Your task to perform on an android device: toggle improve location accuracy Image 0: 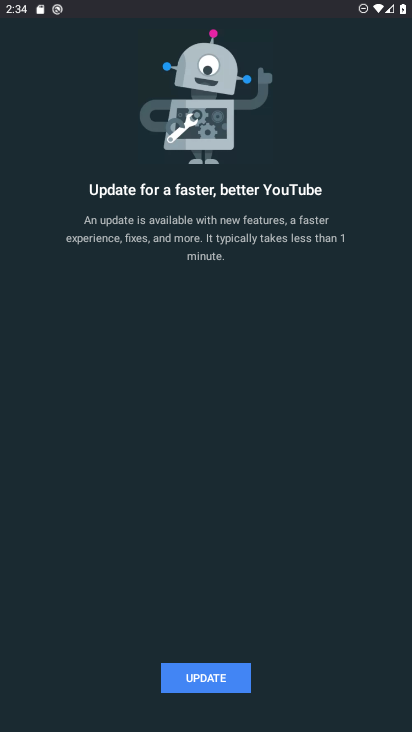
Step 0: press home button
Your task to perform on an android device: toggle improve location accuracy Image 1: 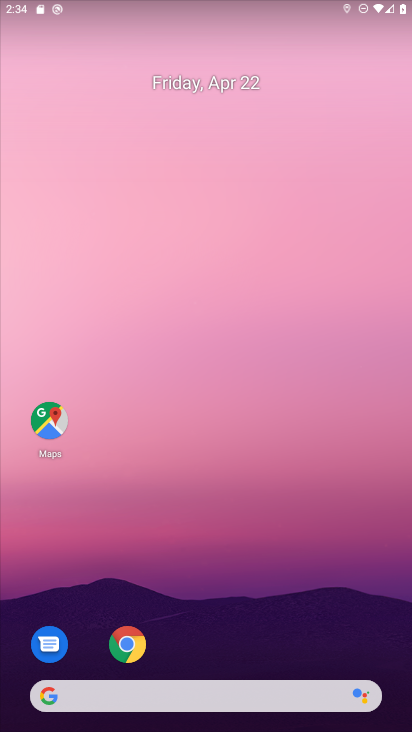
Step 1: drag from (245, 590) to (317, 135)
Your task to perform on an android device: toggle improve location accuracy Image 2: 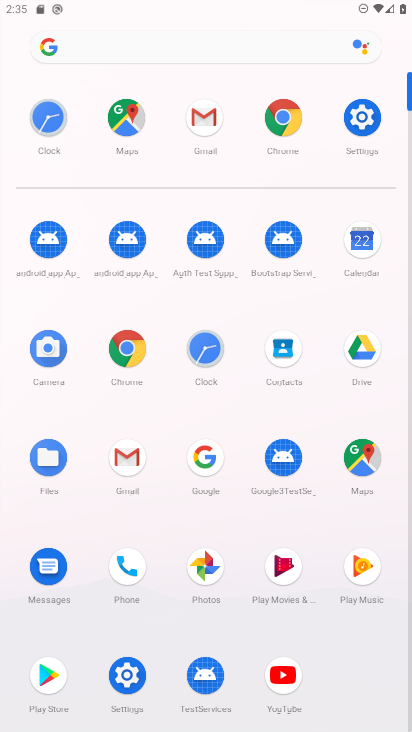
Step 2: click (362, 113)
Your task to perform on an android device: toggle improve location accuracy Image 3: 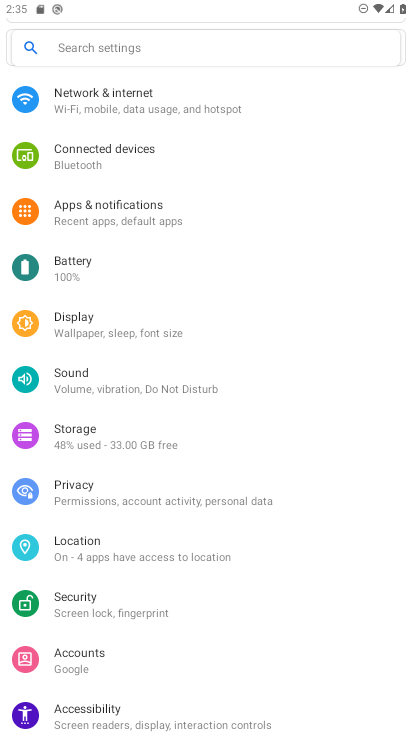
Step 3: drag from (232, 515) to (273, 145)
Your task to perform on an android device: toggle improve location accuracy Image 4: 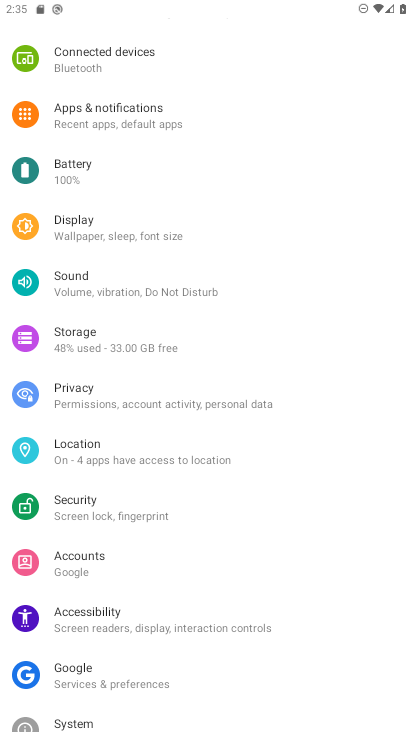
Step 4: drag from (222, 635) to (288, 260)
Your task to perform on an android device: toggle improve location accuracy Image 5: 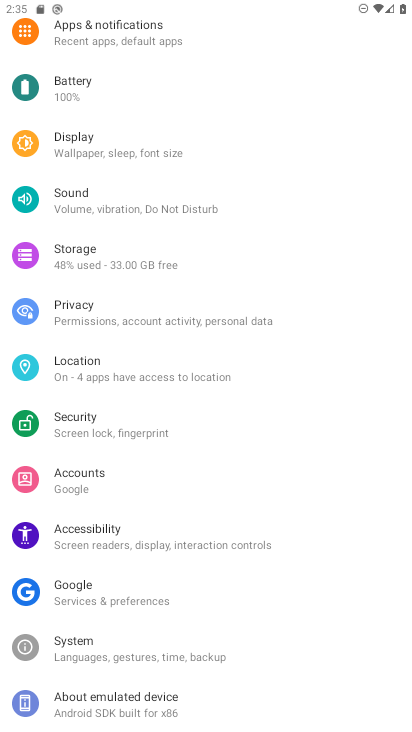
Step 5: click (69, 367)
Your task to perform on an android device: toggle improve location accuracy Image 6: 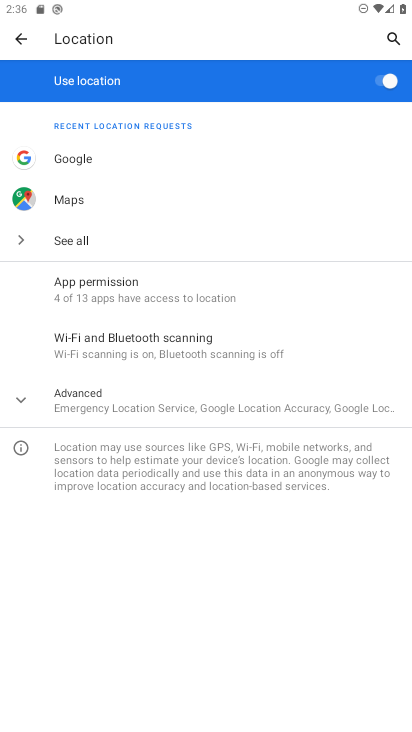
Step 6: click (101, 394)
Your task to perform on an android device: toggle improve location accuracy Image 7: 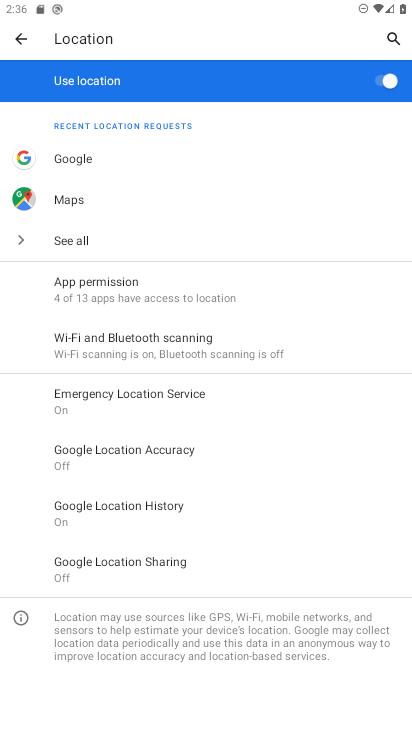
Step 7: click (165, 450)
Your task to perform on an android device: toggle improve location accuracy Image 8: 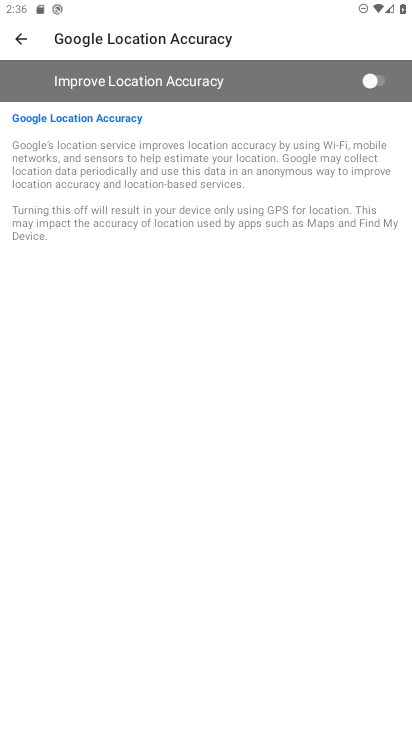
Step 8: click (364, 81)
Your task to perform on an android device: toggle improve location accuracy Image 9: 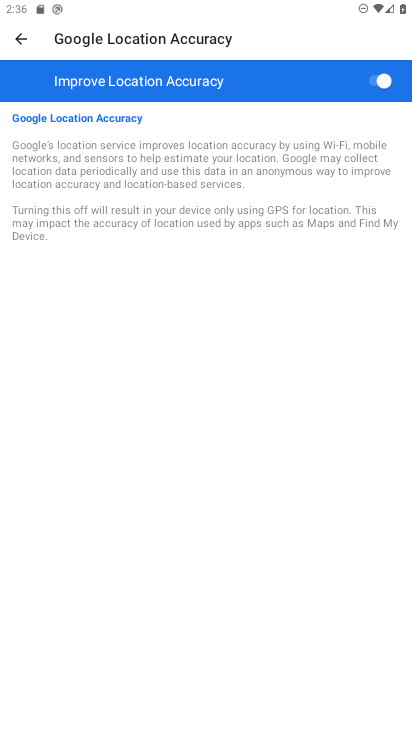
Step 9: task complete